Your task to perform on an android device: Go to battery settings Image 0: 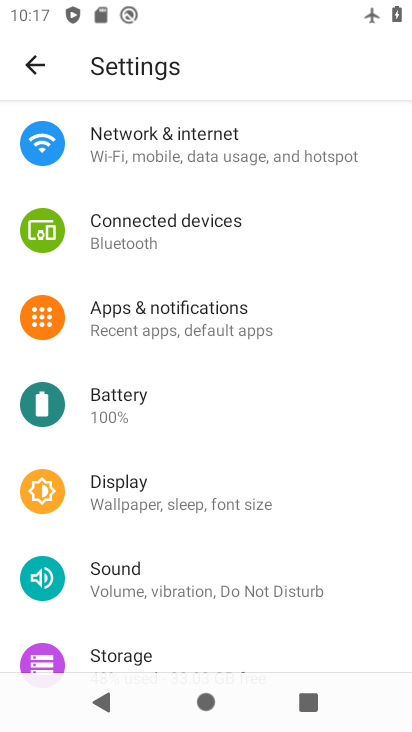
Step 0: press back button
Your task to perform on an android device: Go to battery settings Image 1: 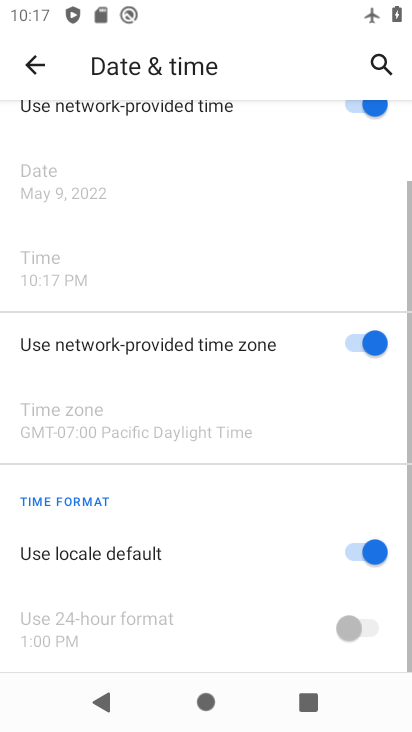
Step 1: press back button
Your task to perform on an android device: Go to battery settings Image 2: 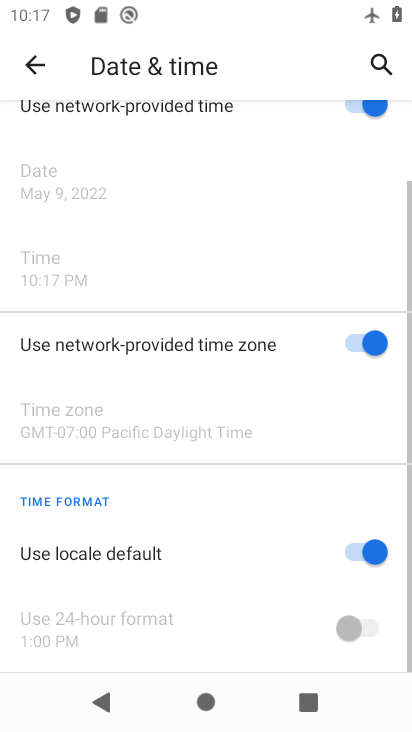
Step 2: press back button
Your task to perform on an android device: Go to battery settings Image 3: 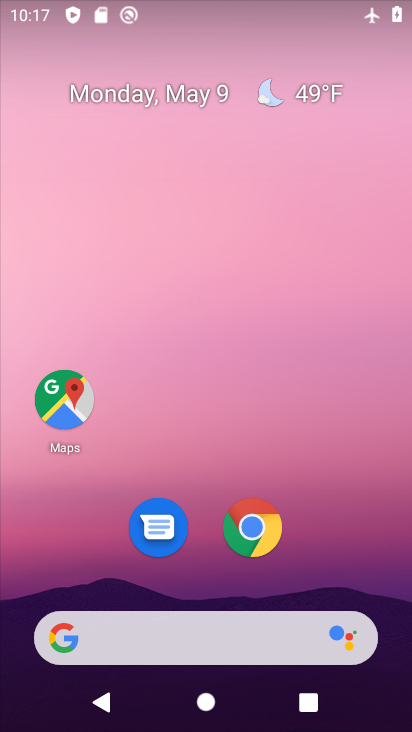
Step 3: drag from (315, 563) to (219, 72)
Your task to perform on an android device: Go to battery settings Image 4: 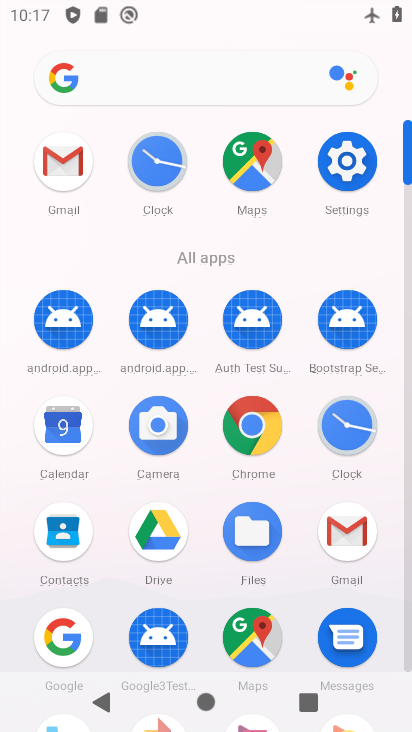
Step 4: click (346, 159)
Your task to perform on an android device: Go to battery settings Image 5: 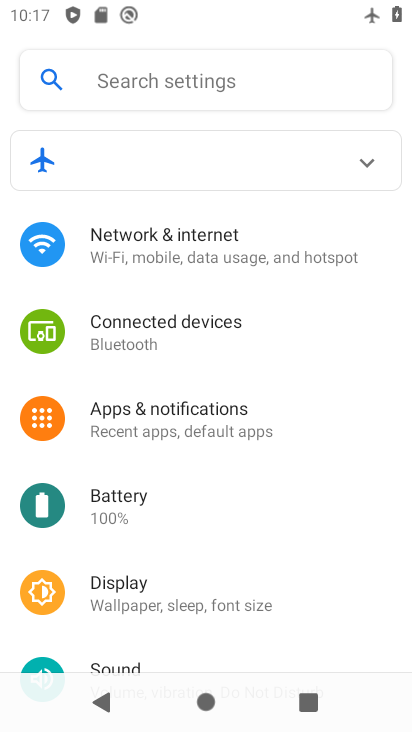
Step 5: drag from (170, 457) to (213, 348)
Your task to perform on an android device: Go to battery settings Image 6: 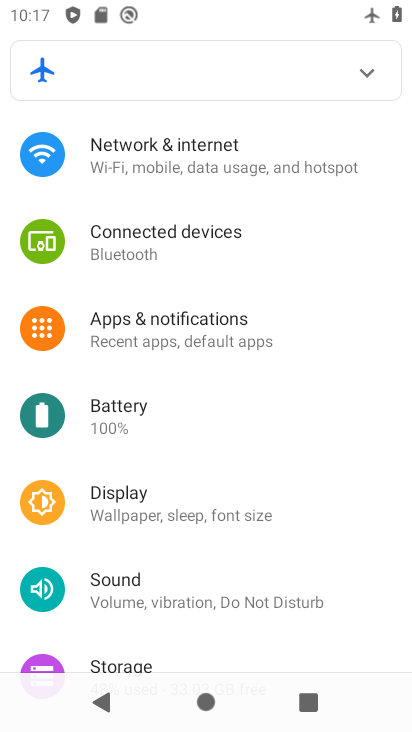
Step 6: click (129, 417)
Your task to perform on an android device: Go to battery settings Image 7: 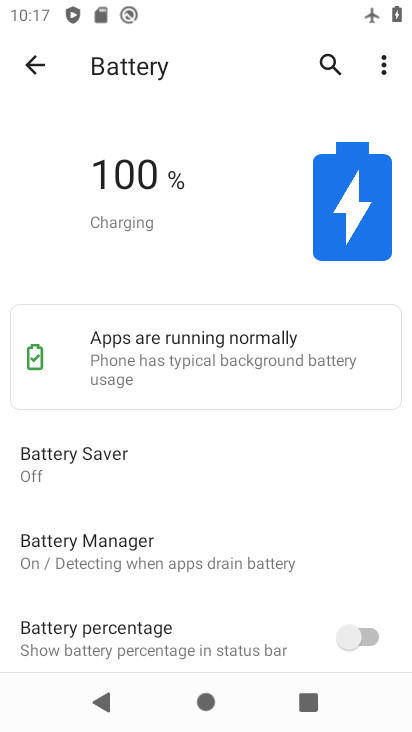
Step 7: task complete